Your task to perform on an android device: turn off location history Image 0: 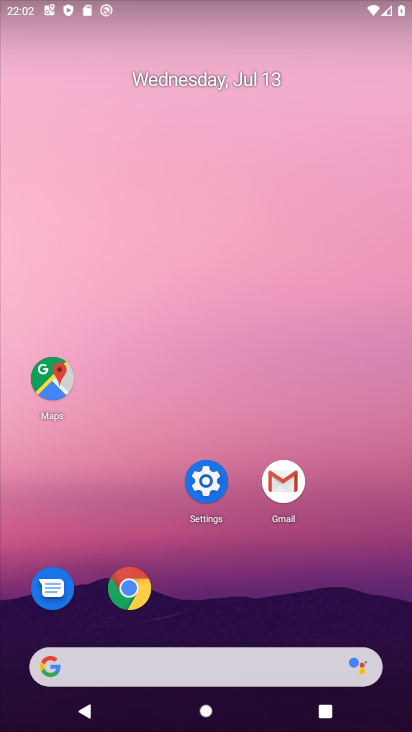
Step 0: click (220, 484)
Your task to perform on an android device: turn off location history Image 1: 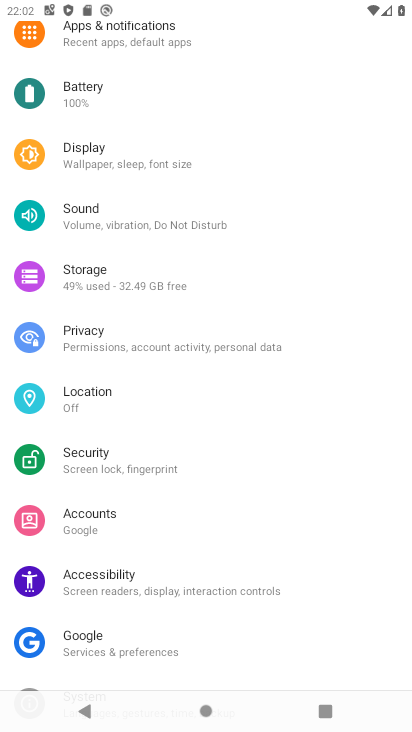
Step 1: click (72, 394)
Your task to perform on an android device: turn off location history Image 2: 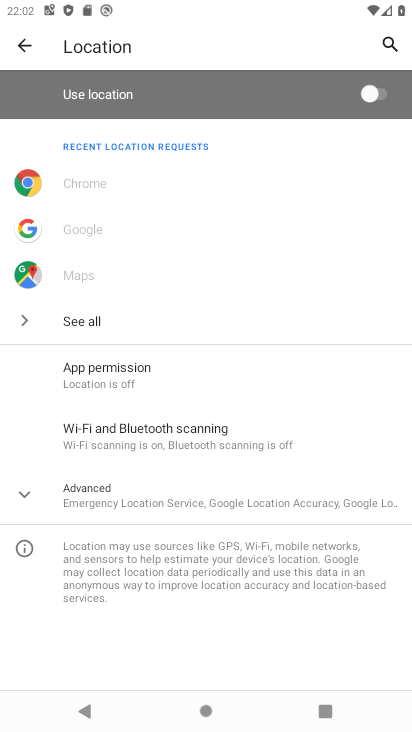
Step 2: click (20, 496)
Your task to perform on an android device: turn off location history Image 3: 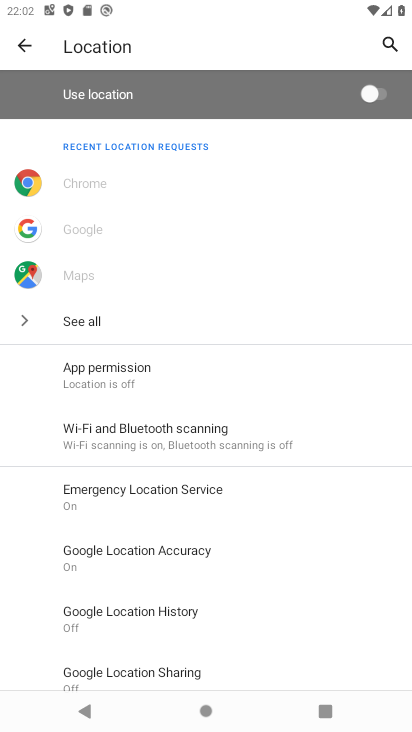
Step 3: click (163, 617)
Your task to perform on an android device: turn off location history Image 4: 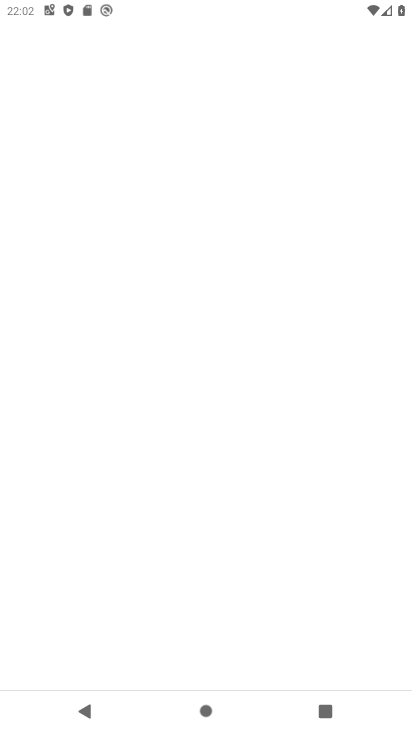
Step 4: task complete